Your task to perform on an android device: Open sound settings Image 0: 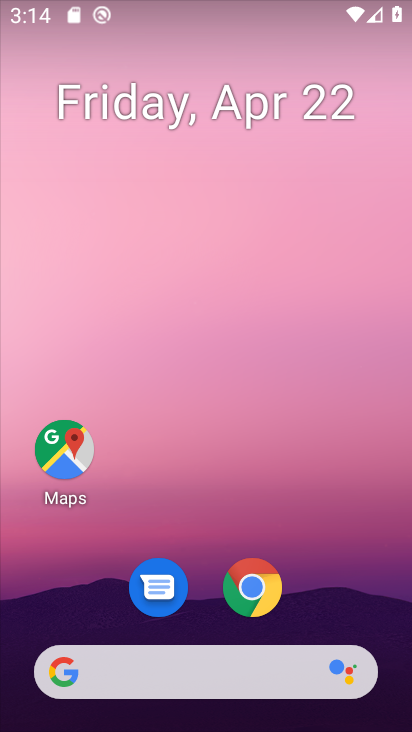
Step 0: drag from (331, 580) to (313, 62)
Your task to perform on an android device: Open sound settings Image 1: 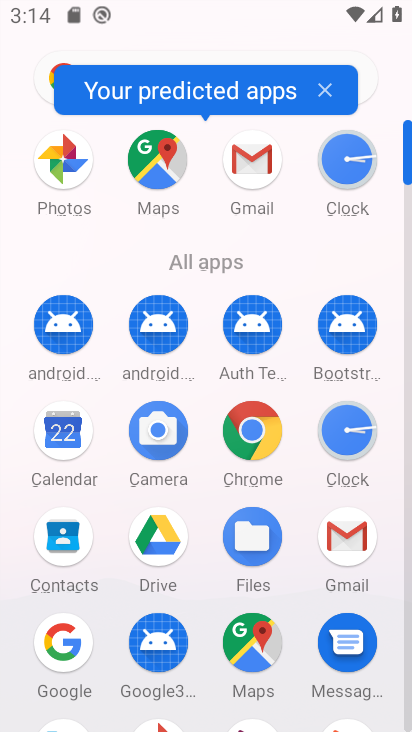
Step 1: drag from (298, 271) to (329, 57)
Your task to perform on an android device: Open sound settings Image 2: 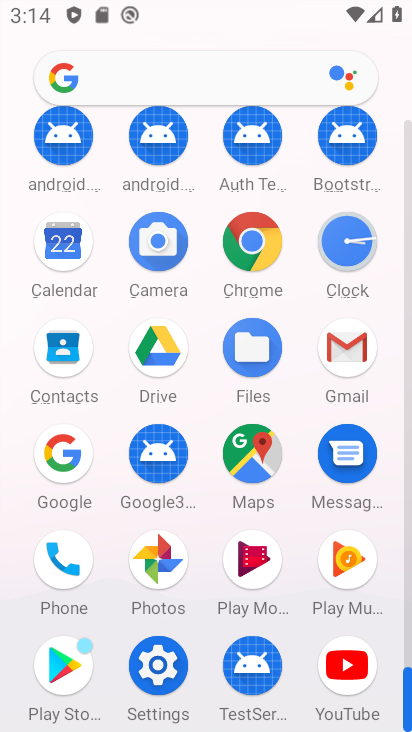
Step 2: click (160, 662)
Your task to perform on an android device: Open sound settings Image 3: 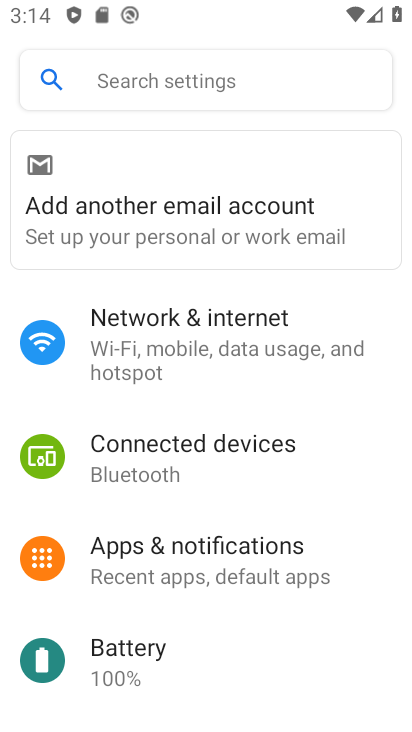
Step 3: drag from (202, 517) to (285, 362)
Your task to perform on an android device: Open sound settings Image 4: 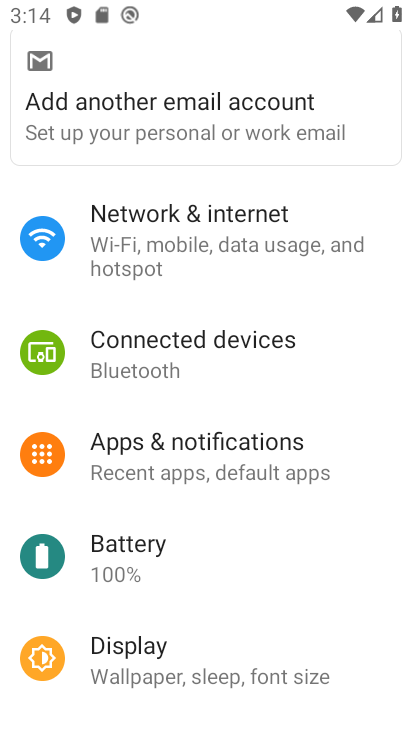
Step 4: drag from (201, 601) to (275, 426)
Your task to perform on an android device: Open sound settings Image 5: 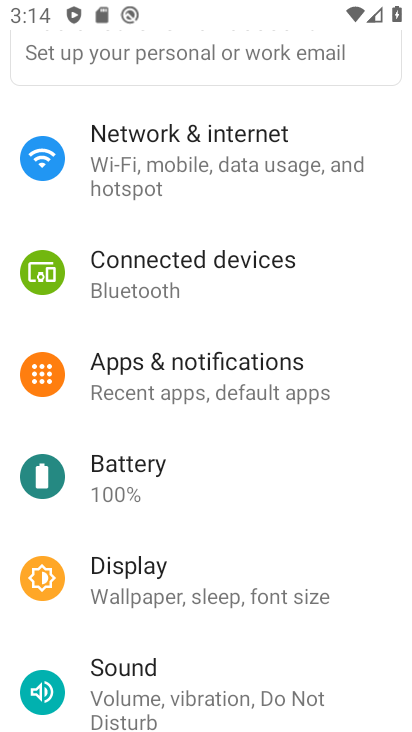
Step 5: click (150, 690)
Your task to perform on an android device: Open sound settings Image 6: 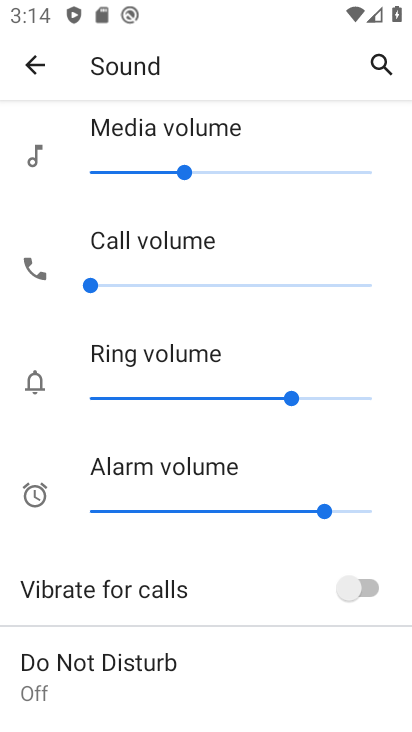
Step 6: task complete